Your task to perform on an android device: open app "Adobe Acrobat Reader" (install if not already installed), go to login, and select forgot password Image 0: 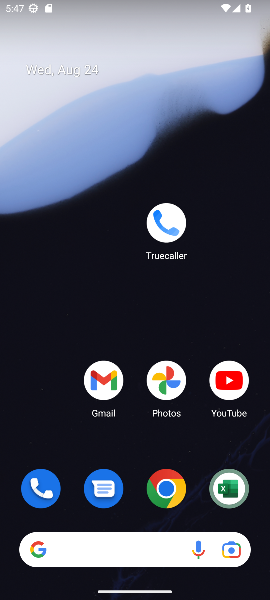
Step 0: drag from (134, 518) to (98, 1)
Your task to perform on an android device: open app "Adobe Acrobat Reader" (install if not already installed), go to login, and select forgot password Image 1: 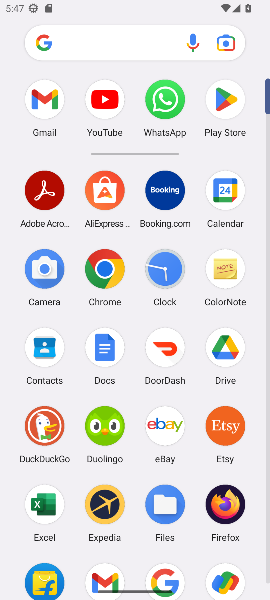
Step 1: click (35, 176)
Your task to perform on an android device: open app "Adobe Acrobat Reader" (install if not already installed), go to login, and select forgot password Image 2: 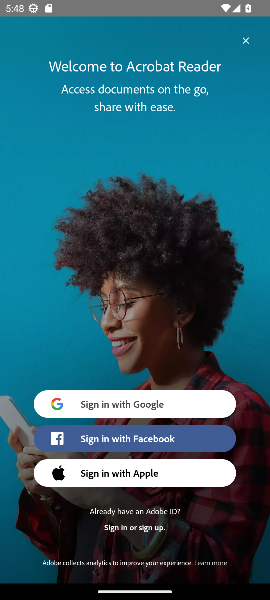
Step 2: press home button
Your task to perform on an android device: open app "Adobe Acrobat Reader" (install if not already installed), go to login, and select forgot password Image 3: 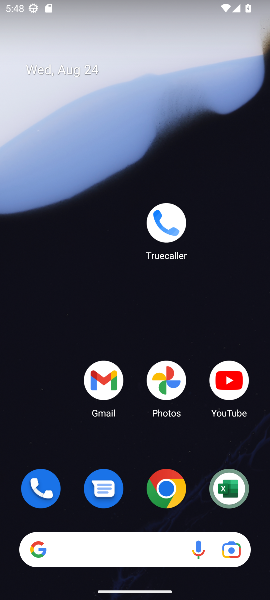
Step 3: drag from (67, 476) to (66, 168)
Your task to perform on an android device: open app "Adobe Acrobat Reader" (install if not already installed), go to login, and select forgot password Image 4: 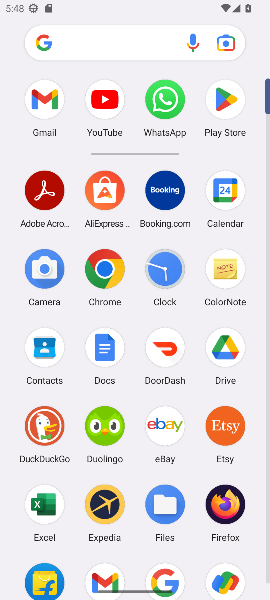
Step 4: click (62, 191)
Your task to perform on an android device: open app "Adobe Acrobat Reader" (install if not already installed), go to login, and select forgot password Image 5: 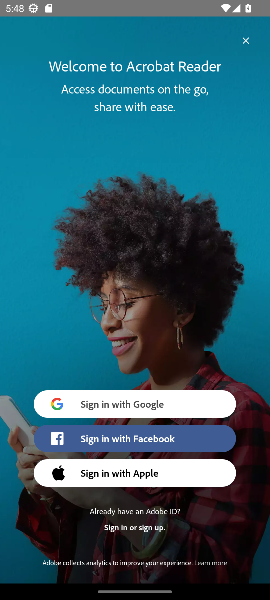
Step 5: task complete